Your task to perform on an android device: turn on translation in the chrome app Image 0: 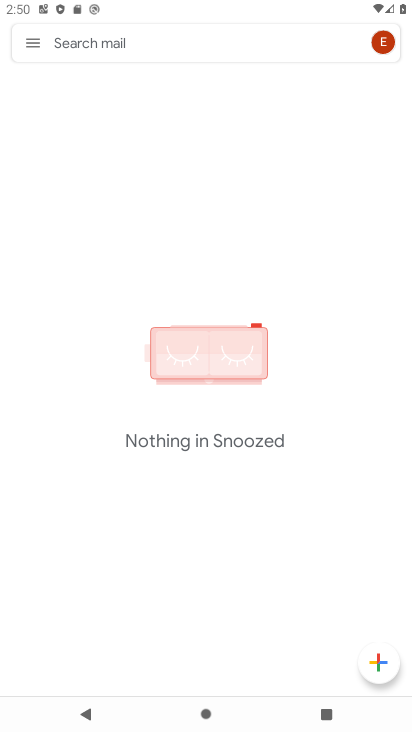
Step 0: press home button
Your task to perform on an android device: turn on translation in the chrome app Image 1: 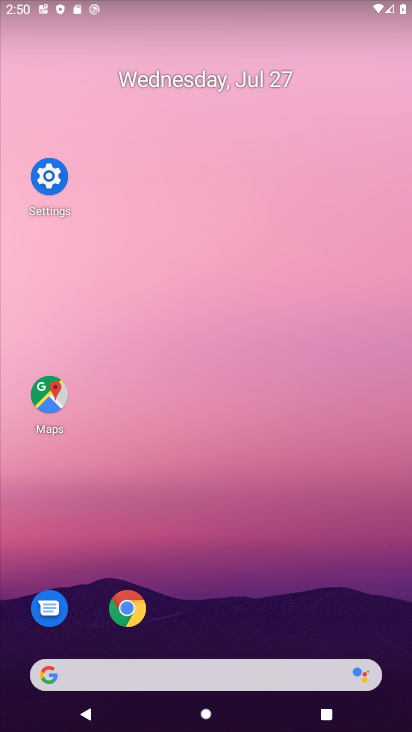
Step 1: click (138, 602)
Your task to perform on an android device: turn on translation in the chrome app Image 2: 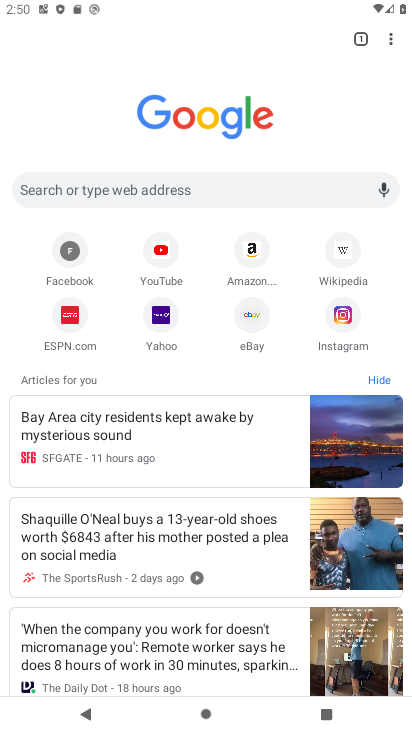
Step 2: click (392, 43)
Your task to perform on an android device: turn on translation in the chrome app Image 3: 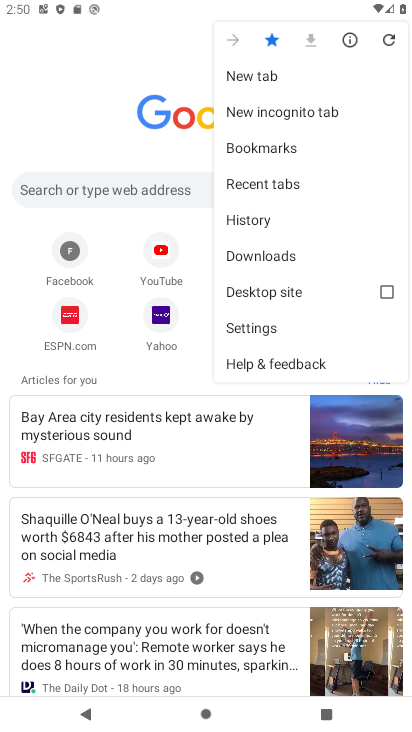
Step 3: click (270, 334)
Your task to perform on an android device: turn on translation in the chrome app Image 4: 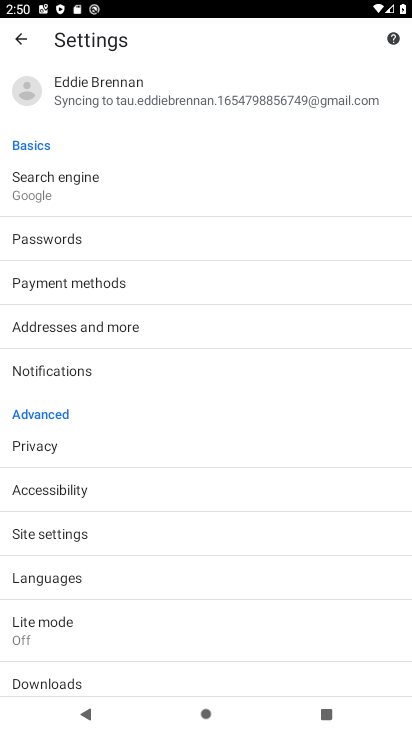
Step 4: click (133, 589)
Your task to perform on an android device: turn on translation in the chrome app Image 5: 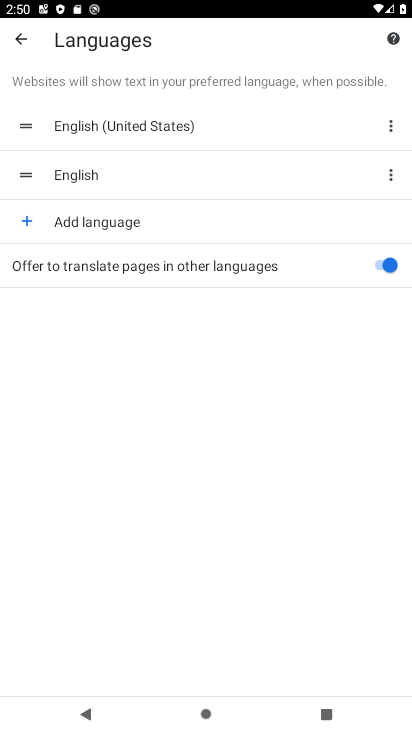
Step 5: task complete